Your task to perform on an android device: Open Reddit.com Image 0: 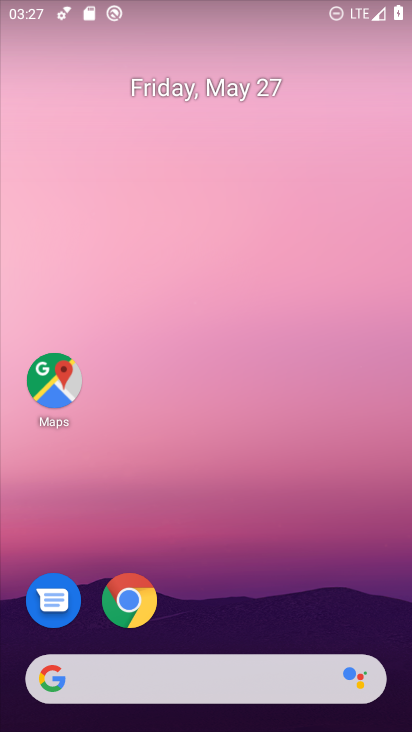
Step 0: click (128, 602)
Your task to perform on an android device: Open Reddit.com Image 1: 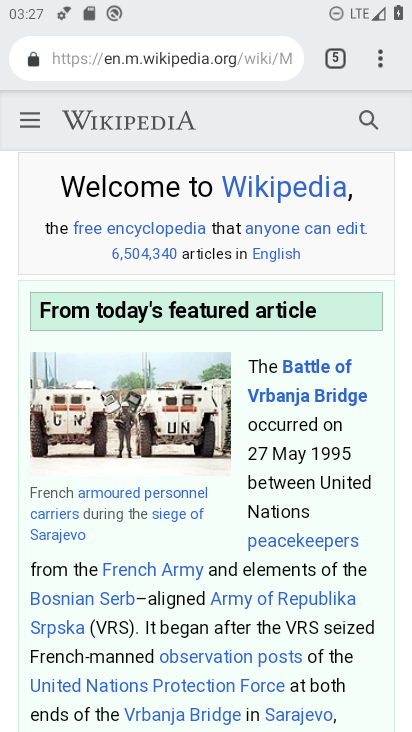
Step 1: click (380, 66)
Your task to perform on an android device: Open Reddit.com Image 2: 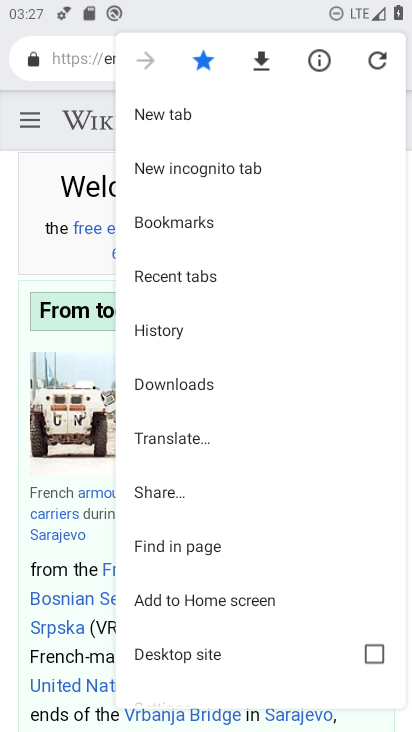
Step 2: click (176, 111)
Your task to perform on an android device: Open Reddit.com Image 3: 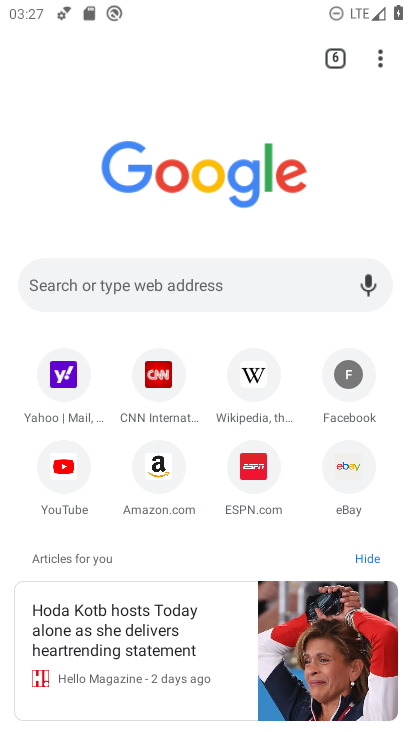
Step 3: click (237, 283)
Your task to perform on an android device: Open Reddit.com Image 4: 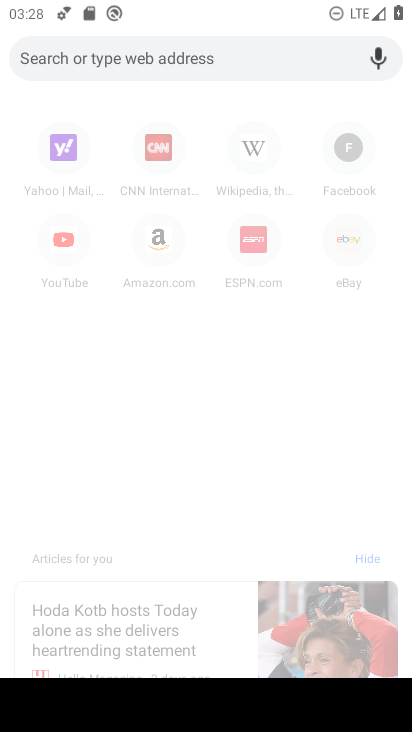
Step 4: type "Reddit.com"
Your task to perform on an android device: Open Reddit.com Image 5: 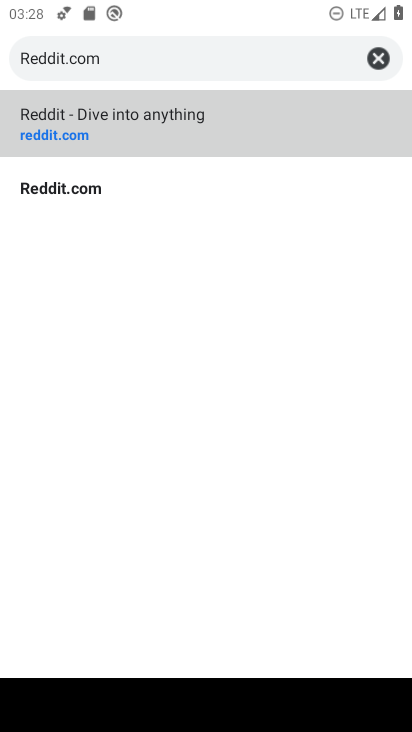
Step 5: click (143, 119)
Your task to perform on an android device: Open Reddit.com Image 6: 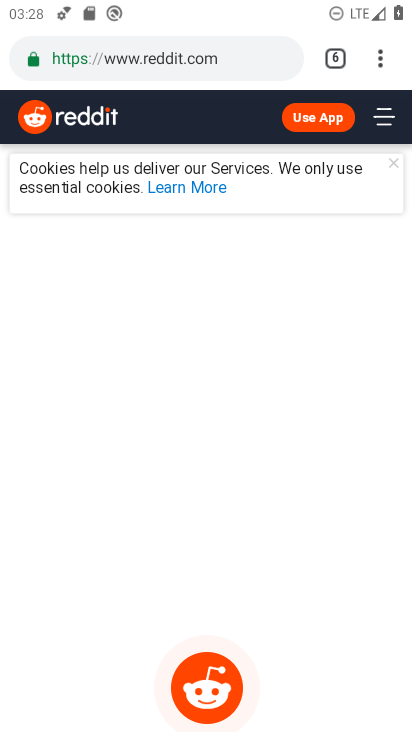
Step 6: task complete